Your task to perform on an android device: add a contact Image 0: 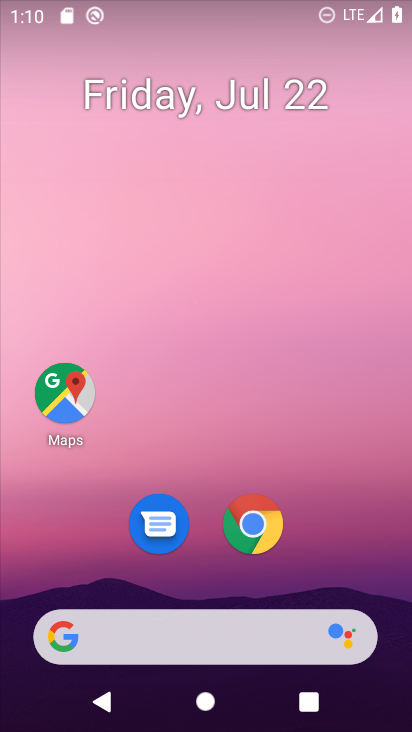
Step 0: drag from (340, 556) to (356, 147)
Your task to perform on an android device: add a contact Image 1: 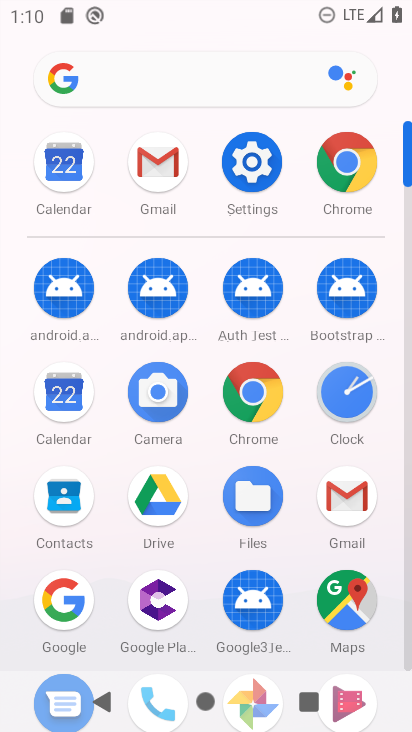
Step 1: click (71, 494)
Your task to perform on an android device: add a contact Image 2: 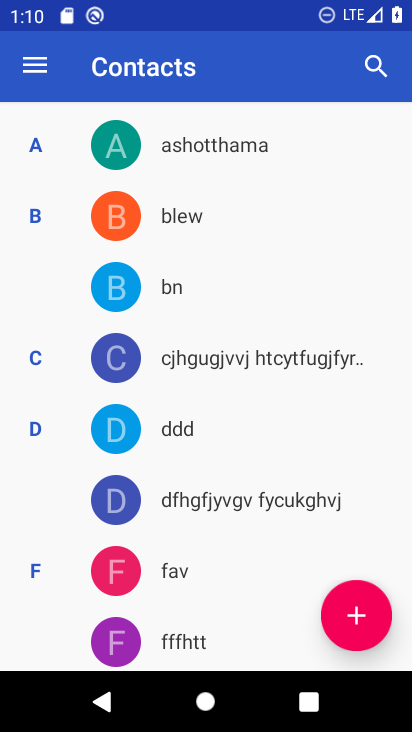
Step 2: click (374, 608)
Your task to perform on an android device: add a contact Image 3: 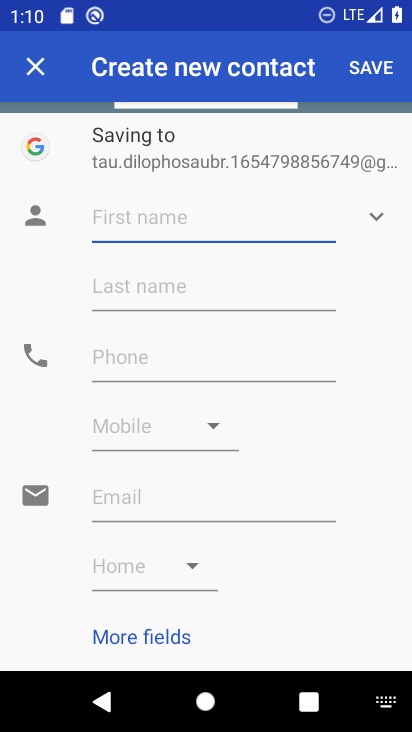
Step 3: type "Divya Prabha"
Your task to perform on an android device: add a contact Image 4: 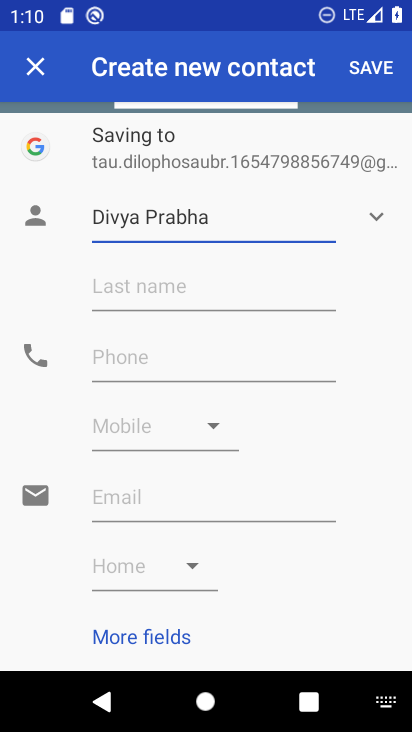
Step 4: click (152, 366)
Your task to perform on an android device: add a contact Image 5: 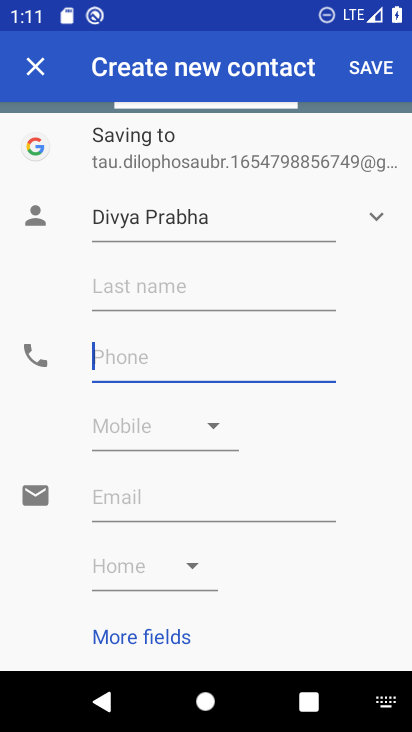
Step 5: type "9876543210"
Your task to perform on an android device: add a contact Image 6: 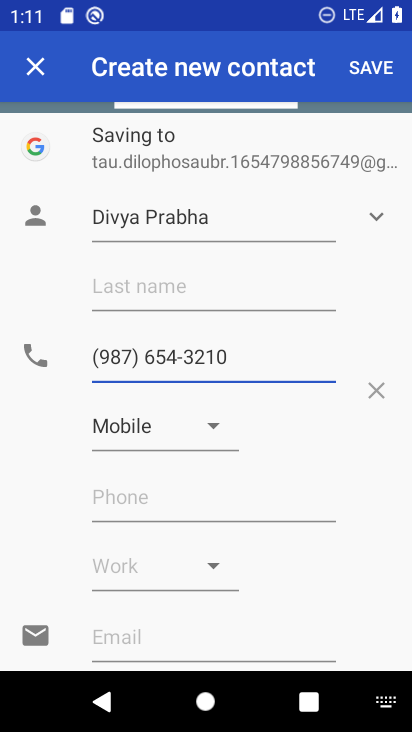
Step 6: click (379, 75)
Your task to perform on an android device: add a contact Image 7: 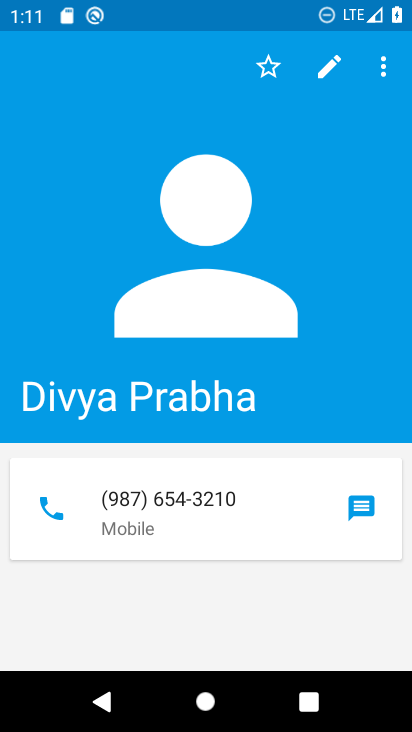
Step 7: task complete